Your task to perform on an android device: turn pop-ups on in chrome Image 0: 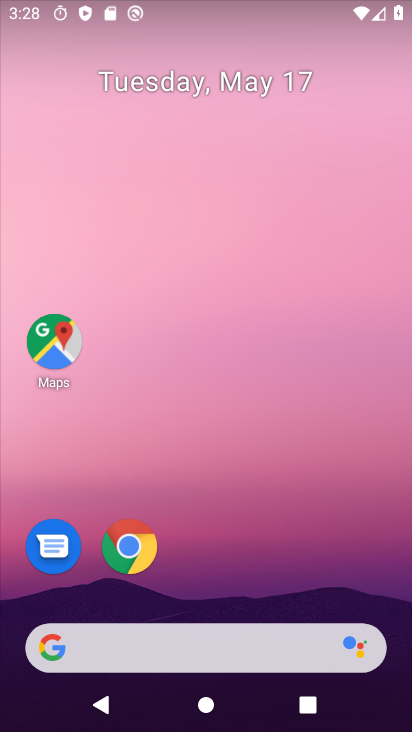
Step 0: drag from (227, 571) to (220, 164)
Your task to perform on an android device: turn pop-ups on in chrome Image 1: 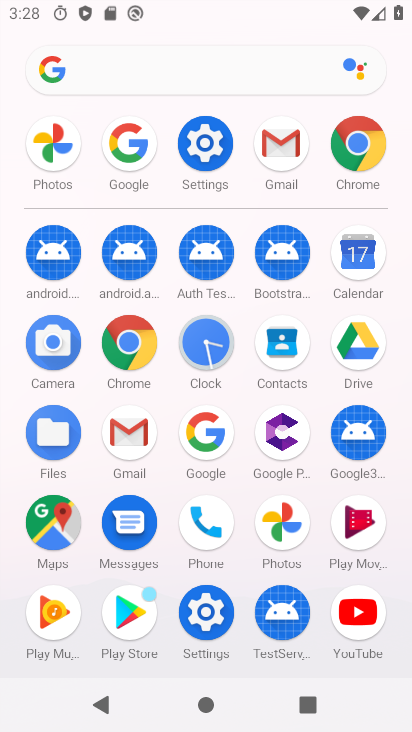
Step 1: click (366, 176)
Your task to perform on an android device: turn pop-ups on in chrome Image 2: 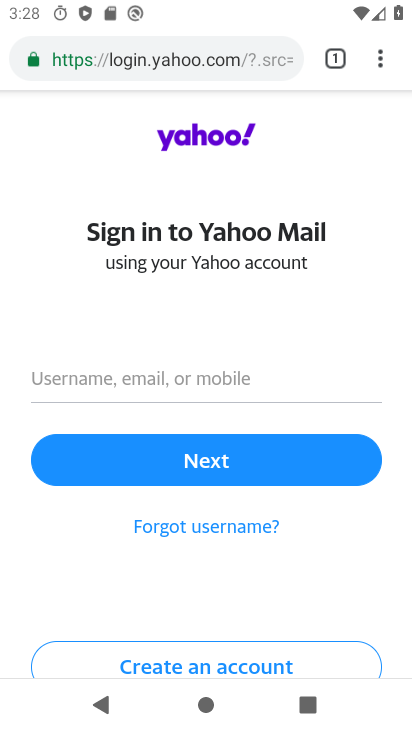
Step 2: click (381, 64)
Your task to perform on an android device: turn pop-ups on in chrome Image 3: 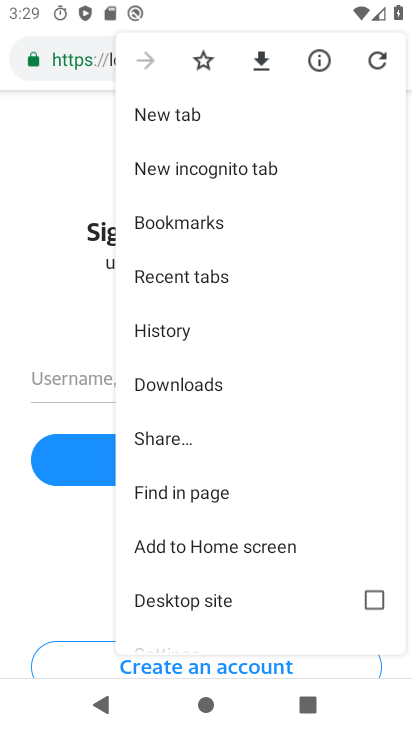
Step 3: drag from (241, 450) to (251, 173)
Your task to perform on an android device: turn pop-ups on in chrome Image 4: 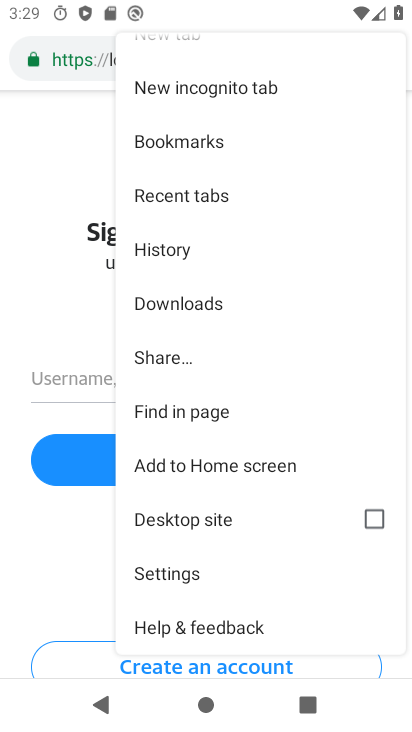
Step 4: click (185, 587)
Your task to perform on an android device: turn pop-ups on in chrome Image 5: 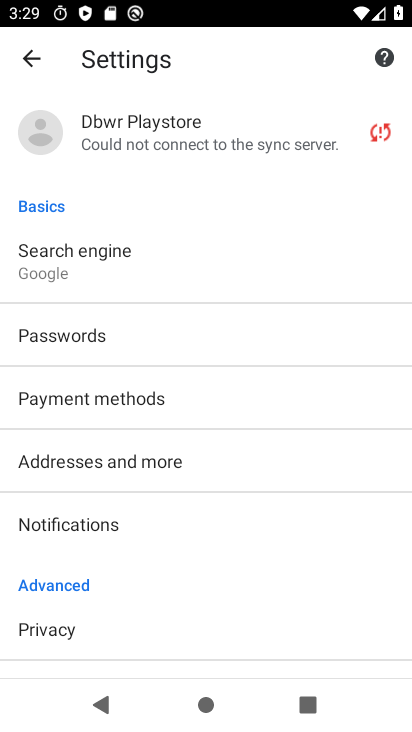
Step 5: drag from (191, 554) to (232, 320)
Your task to perform on an android device: turn pop-ups on in chrome Image 6: 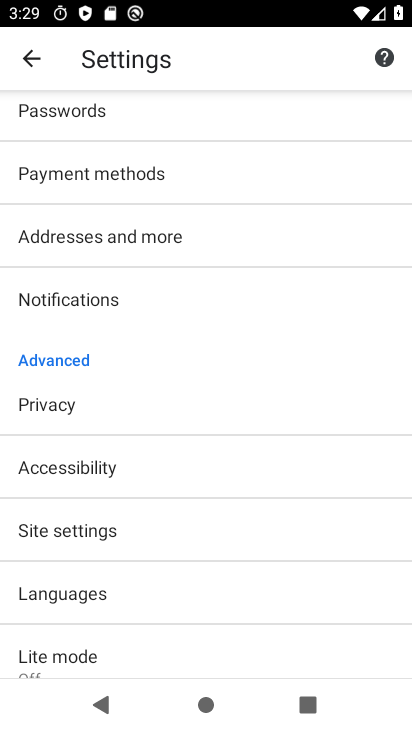
Step 6: click (110, 532)
Your task to perform on an android device: turn pop-ups on in chrome Image 7: 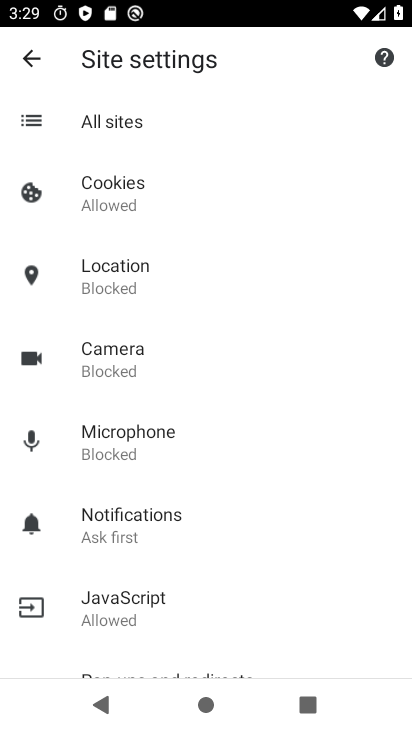
Step 7: drag from (178, 520) to (190, 436)
Your task to perform on an android device: turn pop-ups on in chrome Image 8: 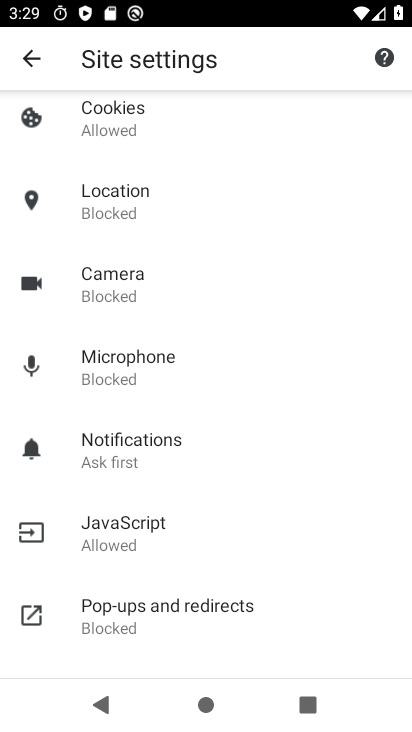
Step 8: drag from (186, 534) to (218, 380)
Your task to perform on an android device: turn pop-ups on in chrome Image 9: 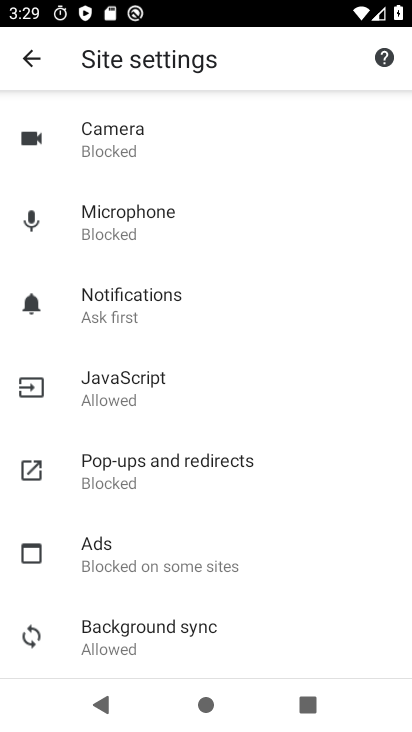
Step 9: click (230, 475)
Your task to perform on an android device: turn pop-ups on in chrome Image 10: 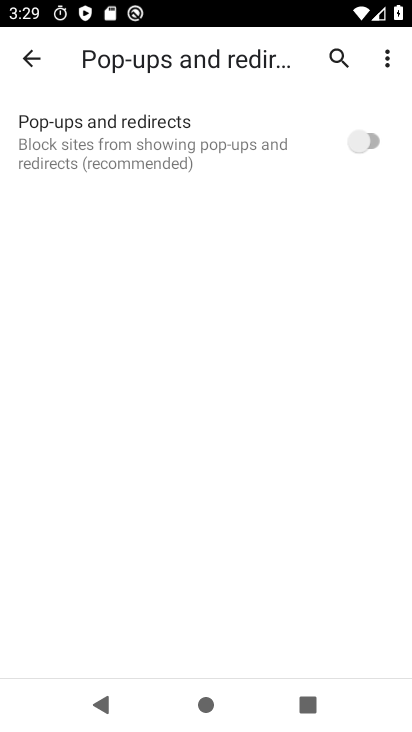
Step 10: click (236, 173)
Your task to perform on an android device: turn pop-ups on in chrome Image 11: 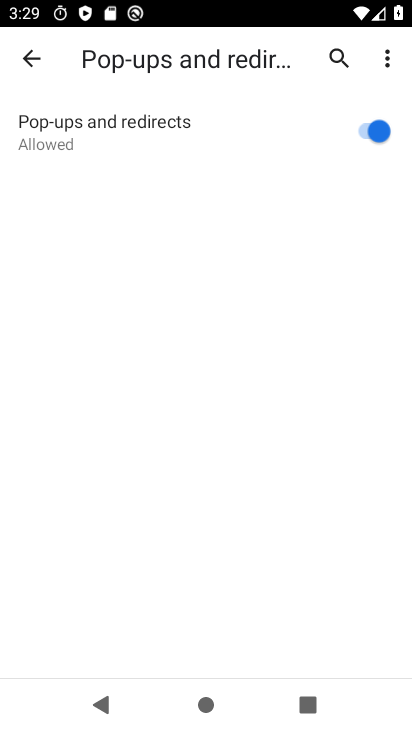
Step 11: task complete